Your task to perform on an android device: move an email to a new category in the gmail app Image 0: 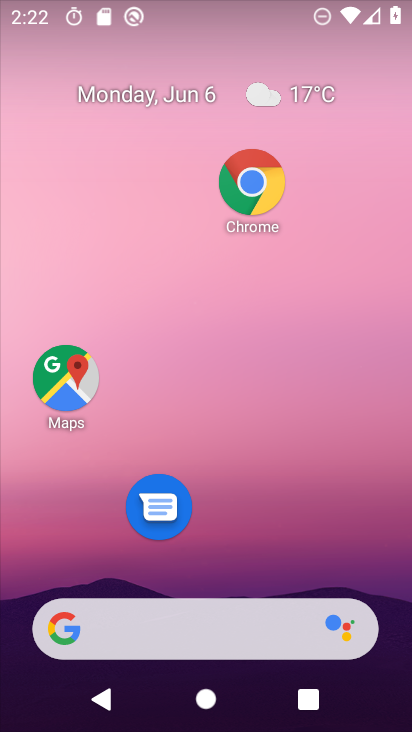
Step 0: drag from (230, 658) to (138, 123)
Your task to perform on an android device: move an email to a new category in the gmail app Image 1: 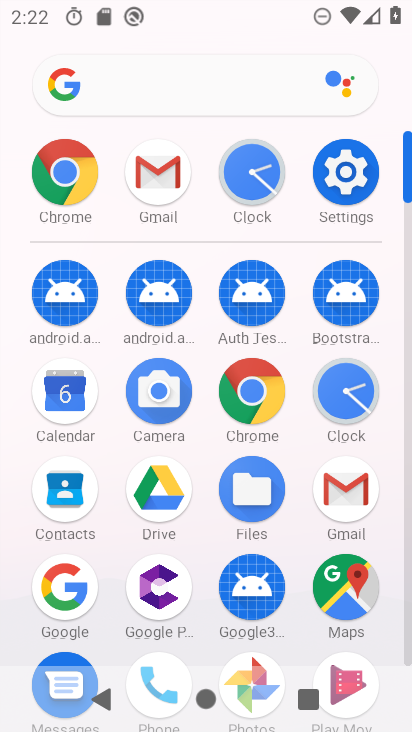
Step 1: click (141, 178)
Your task to perform on an android device: move an email to a new category in the gmail app Image 2: 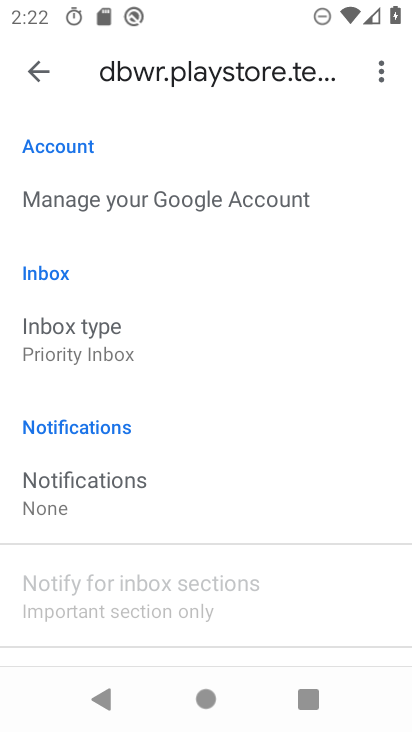
Step 2: click (100, 352)
Your task to perform on an android device: move an email to a new category in the gmail app Image 3: 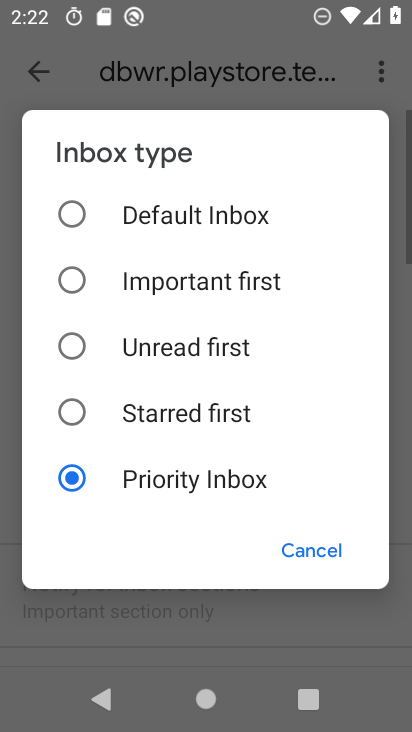
Step 3: click (124, 228)
Your task to perform on an android device: move an email to a new category in the gmail app Image 4: 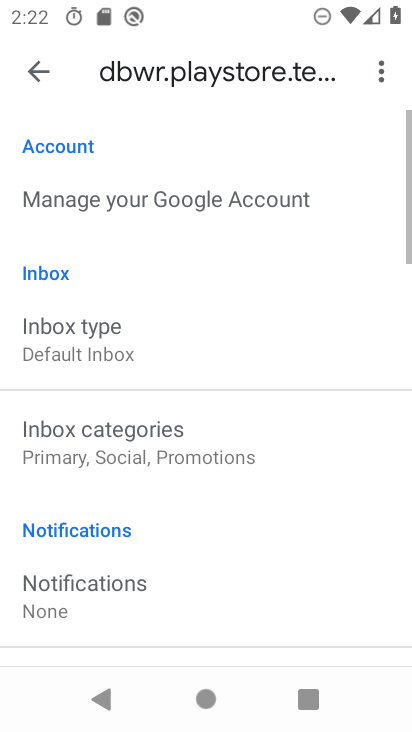
Step 4: click (114, 439)
Your task to perform on an android device: move an email to a new category in the gmail app Image 5: 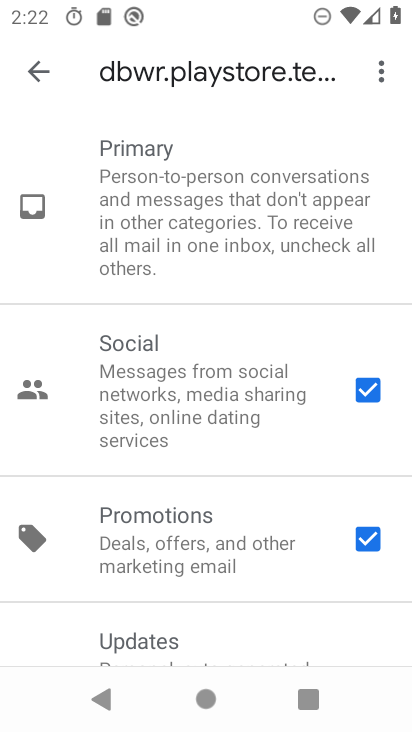
Step 5: drag from (372, 533) to (290, 339)
Your task to perform on an android device: move an email to a new category in the gmail app Image 6: 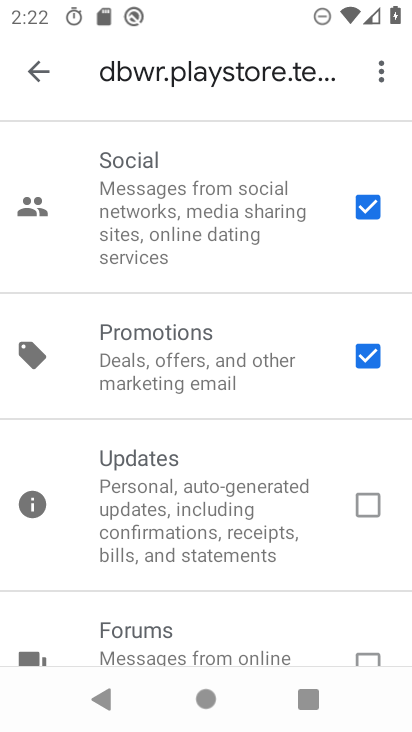
Step 6: click (354, 508)
Your task to perform on an android device: move an email to a new category in the gmail app Image 7: 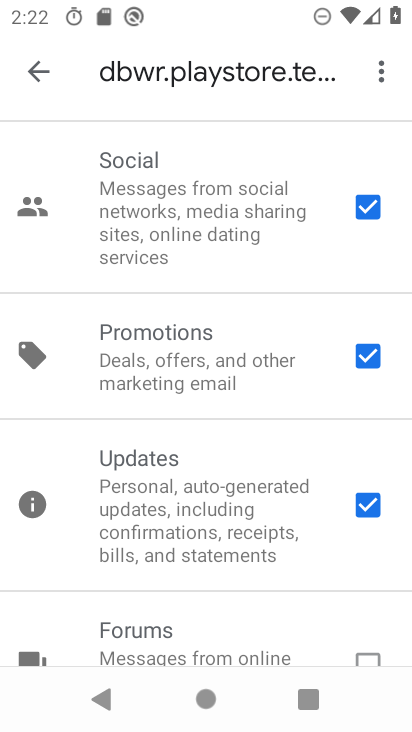
Step 7: task complete